Your task to perform on an android device: read, delete, or share a saved page in the chrome app Image 0: 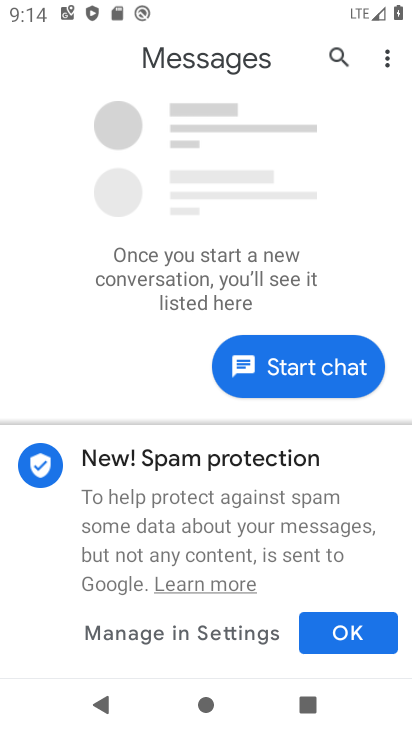
Step 0: press home button
Your task to perform on an android device: read, delete, or share a saved page in the chrome app Image 1: 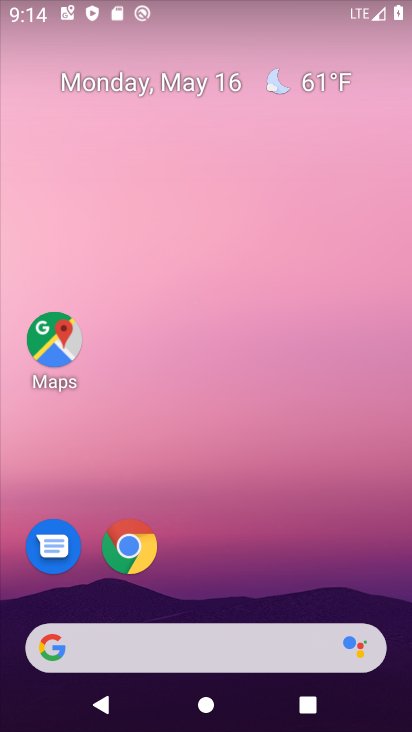
Step 1: click (127, 550)
Your task to perform on an android device: read, delete, or share a saved page in the chrome app Image 2: 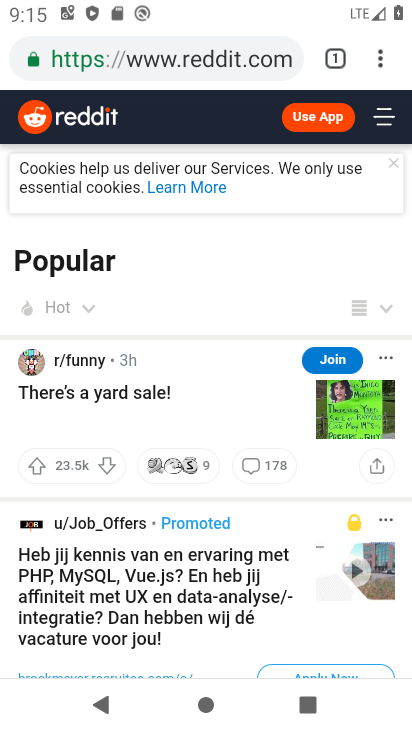
Step 2: click (382, 61)
Your task to perform on an android device: read, delete, or share a saved page in the chrome app Image 3: 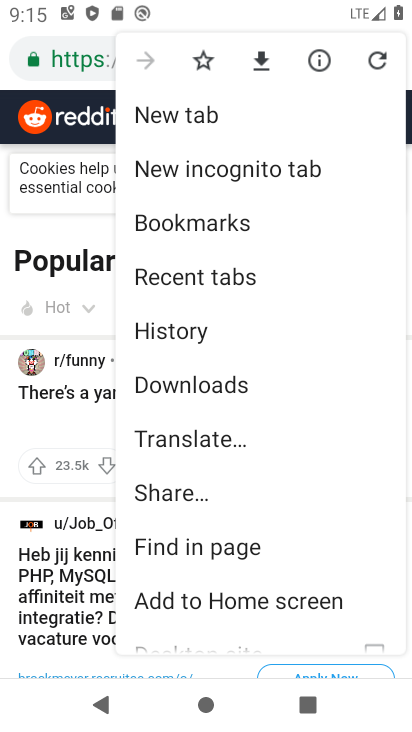
Step 3: click (227, 386)
Your task to perform on an android device: read, delete, or share a saved page in the chrome app Image 4: 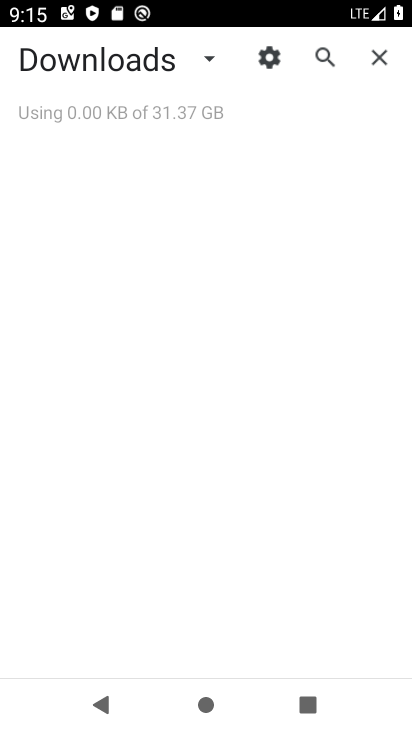
Step 4: task complete